Your task to perform on an android device: uninstall "Google Play Games" Image 0: 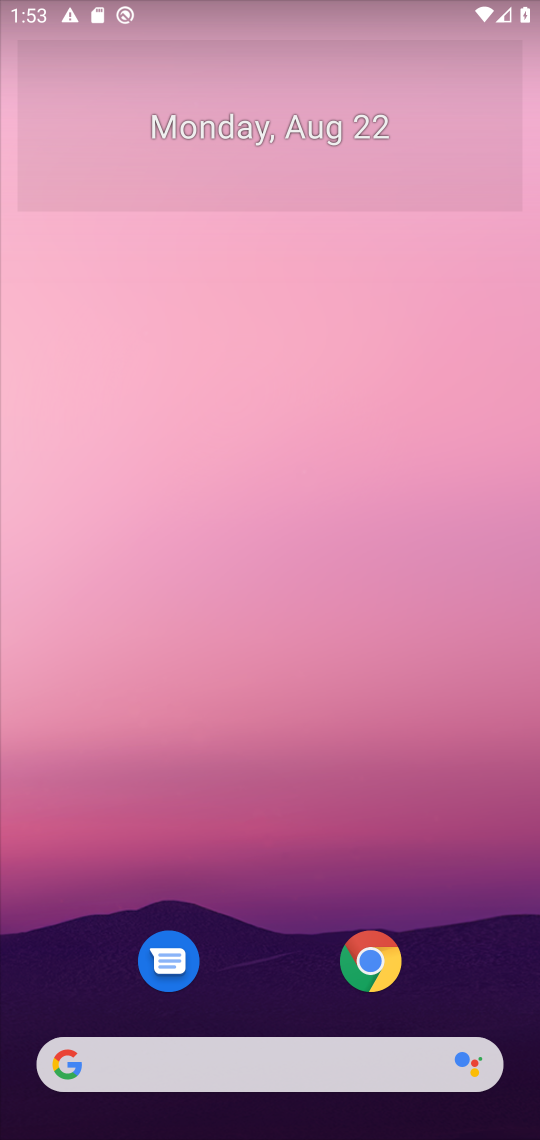
Step 0: press home button
Your task to perform on an android device: uninstall "Google Play Games" Image 1: 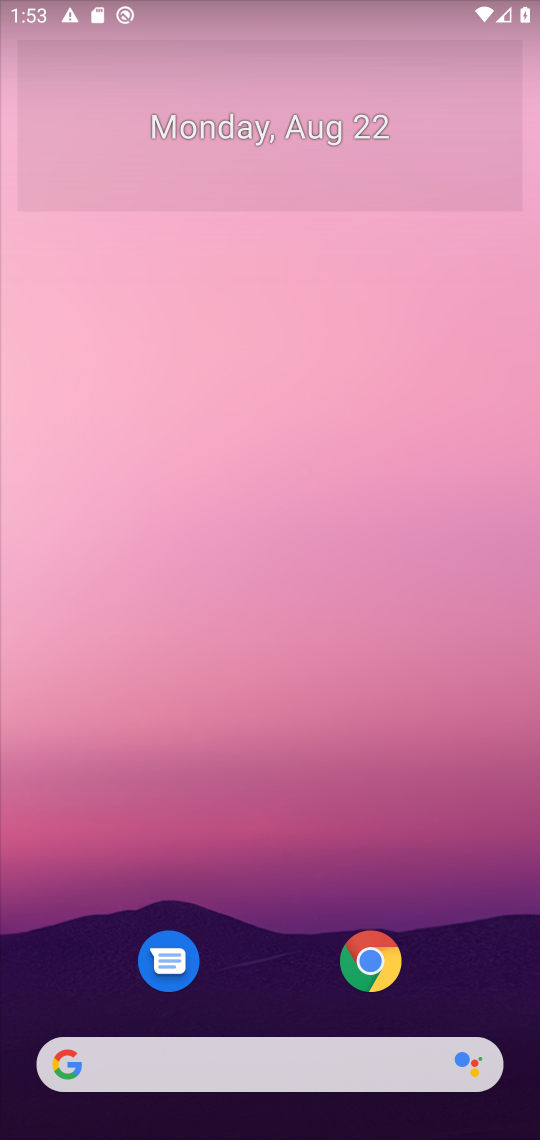
Step 1: drag from (509, 996) to (505, 232)
Your task to perform on an android device: uninstall "Google Play Games" Image 2: 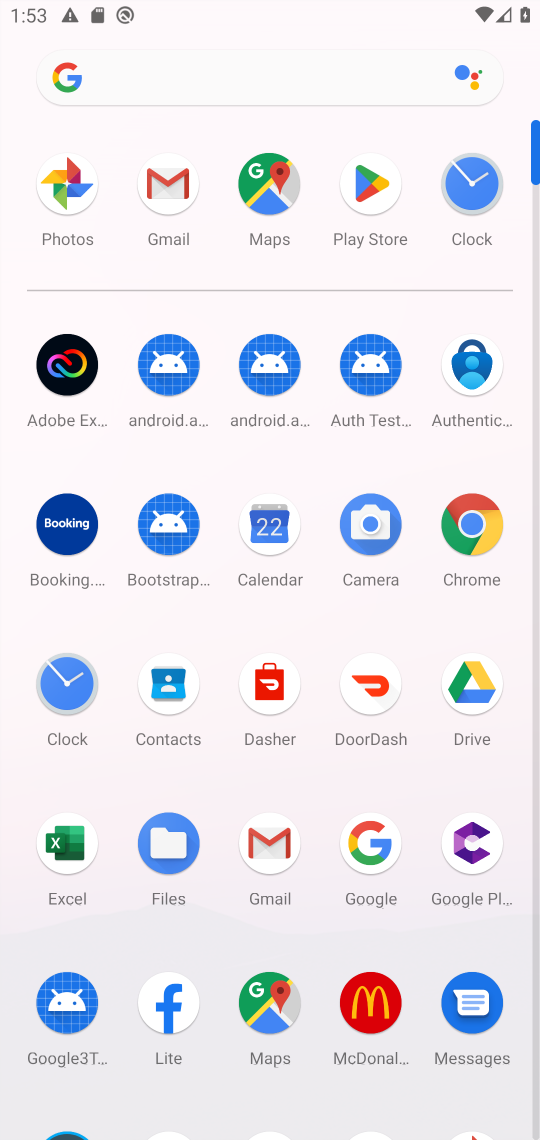
Step 2: click (368, 188)
Your task to perform on an android device: uninstall "Google Play Games" Image 3: 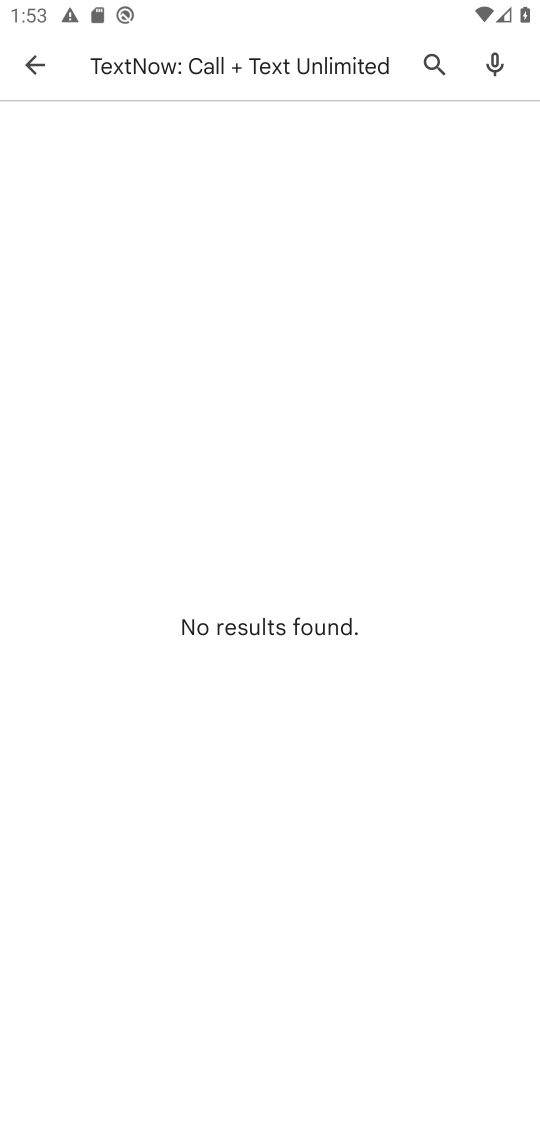
Step 3: press back button
Your task to perform on an android device: uninstall "Google Play Games" Image 4: 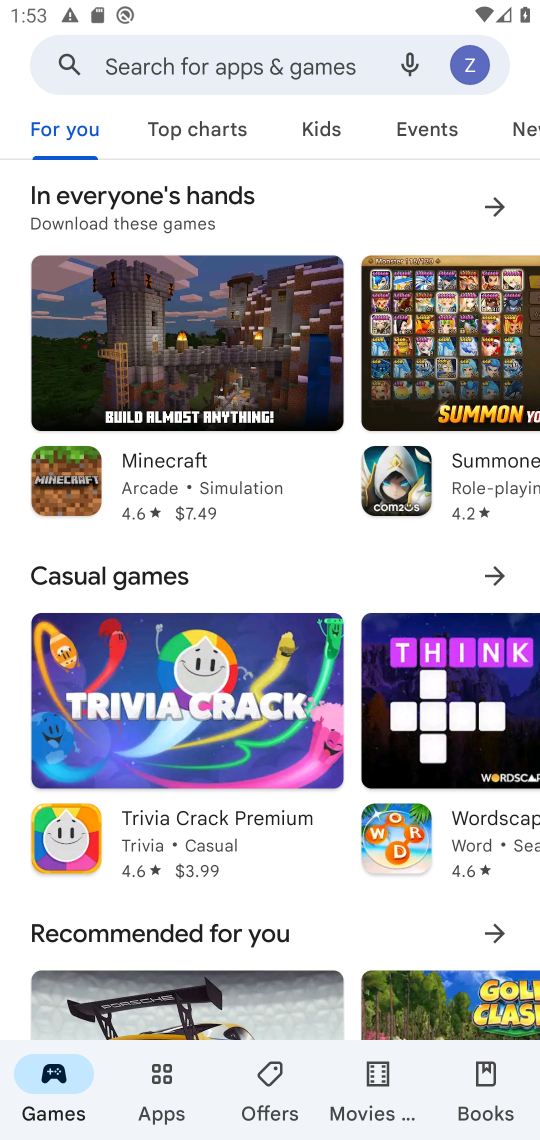
Step 4: click (321, 65)
Your task to perform on an android device: uninstall "Google Play Games" Image 5: 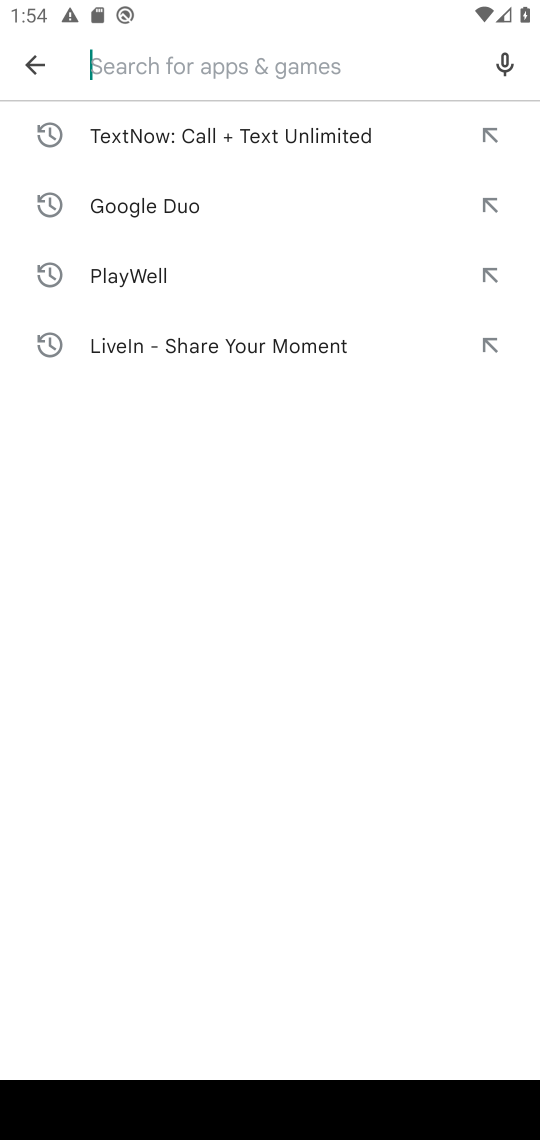
Step 5: type "Google Play Games"
Your task to perform on an android device: uninstall "Google Play Games" Image 6: 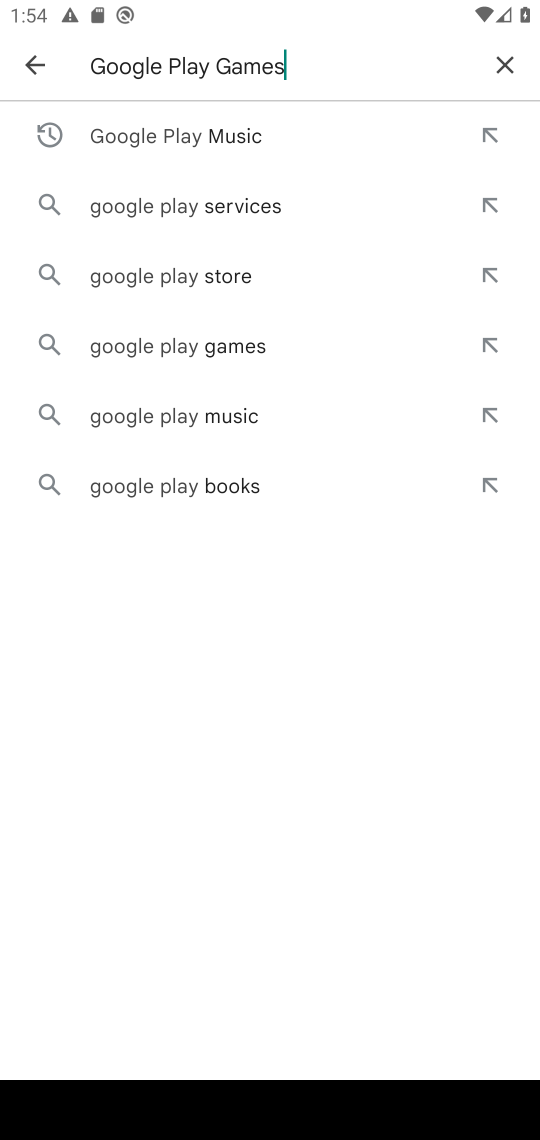
Step 6: press enter
Your task to perform on an android device: uninstall "Google Play Games" Image 7: 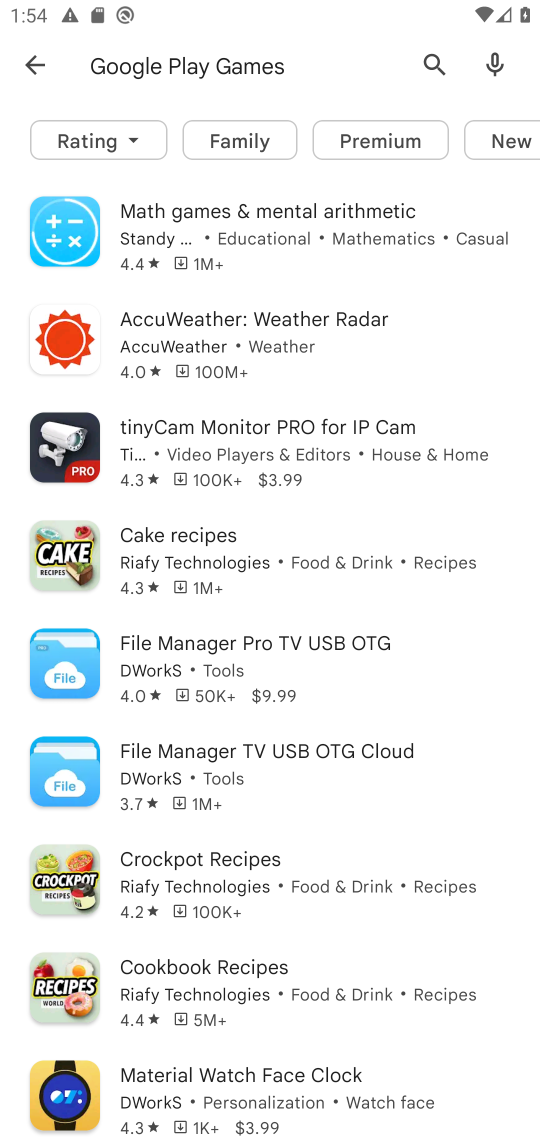
Step 7: task complete